Your task to perform on an android device: Do I have any events today? Image 0: 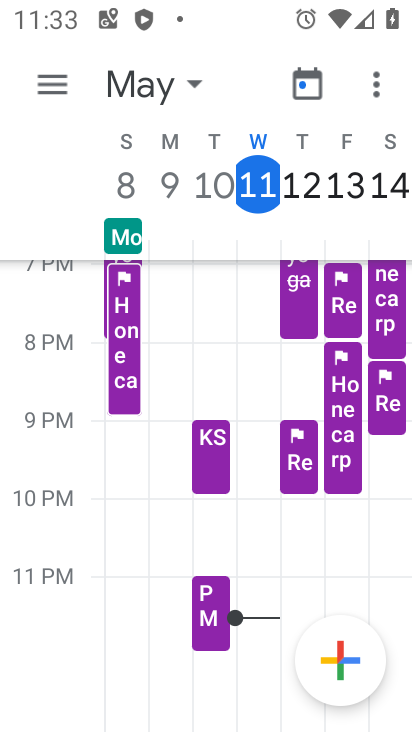
Step 0: press home button
Your task to perform on an android device: Do I have any events today? Image 1: 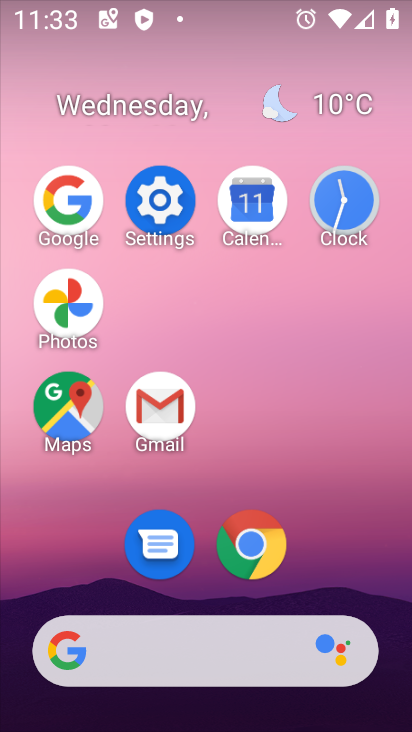
Step 1: click (241, 214)
Your task to perform on an android device: Do I have any events today? Image 2: 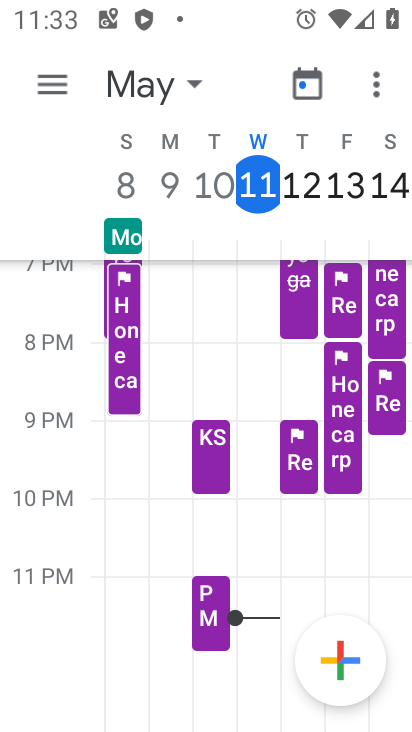
Step 2: click (298, 176)
Your task to perform on an android device: Do I have any events today? Image 3: 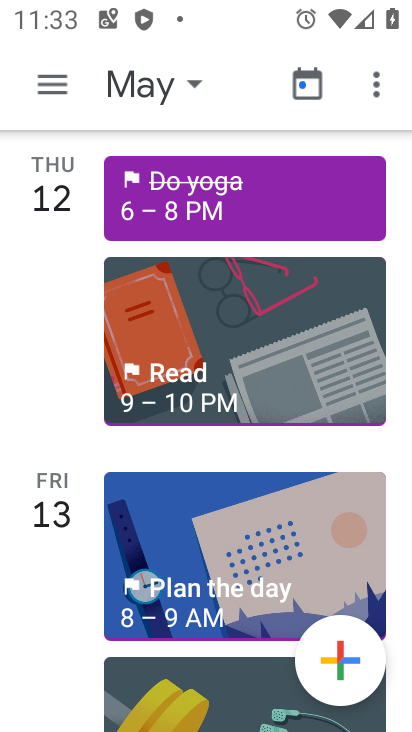
Step 3: task complete